Your task to perform on an android device: star an email in the gmail app Image 0: 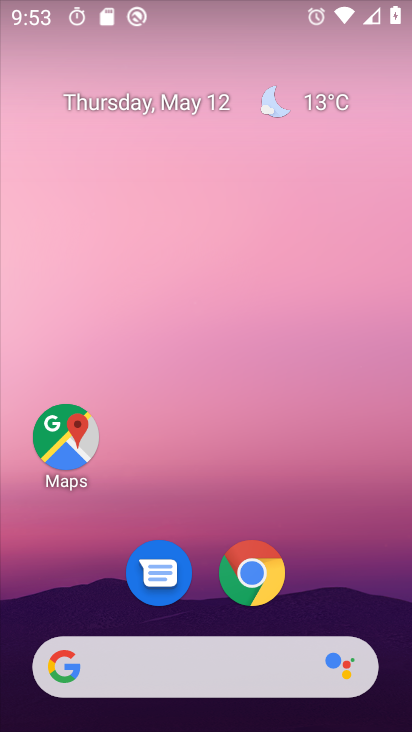
Step 0: drag from (384, 411) to (380, 278)
Your task to perform on an android device: star an email in the gmail app Image 1: 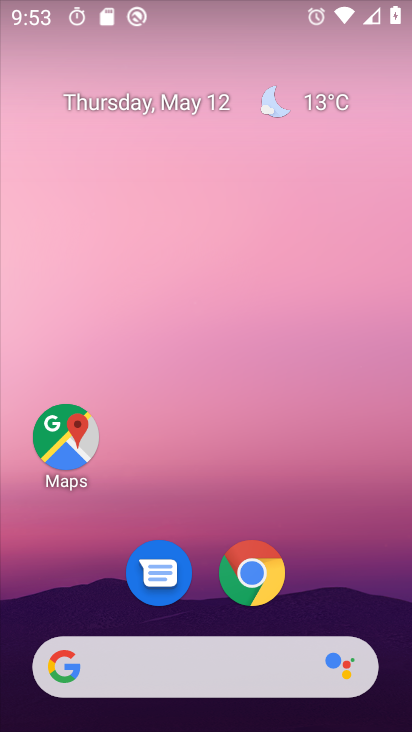
Step 1: drag from (397, 569) to (389, 247)
Your task to perform on an android device: star an email in the gmail app Image 2: 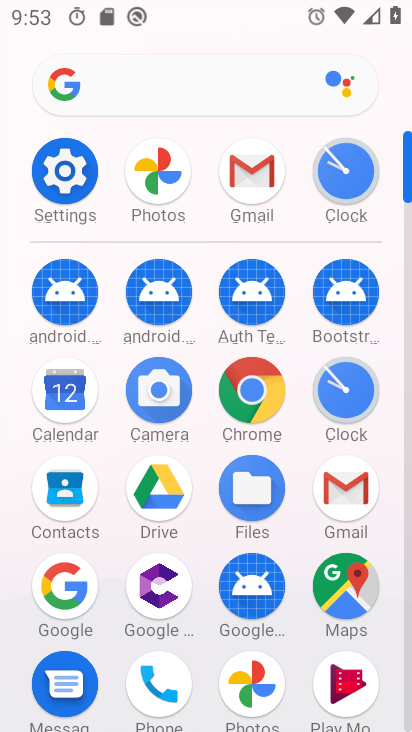
Step 2: click (339, 516)
Your task to perform on an android device: star an email in the gmail app Image 3: 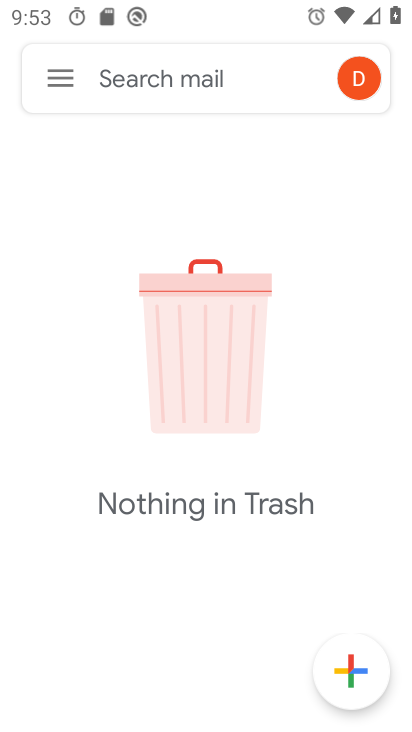
Step 3: click (62, 71)
Your task to perform on an android device: star an email in the gmail app Image 4: 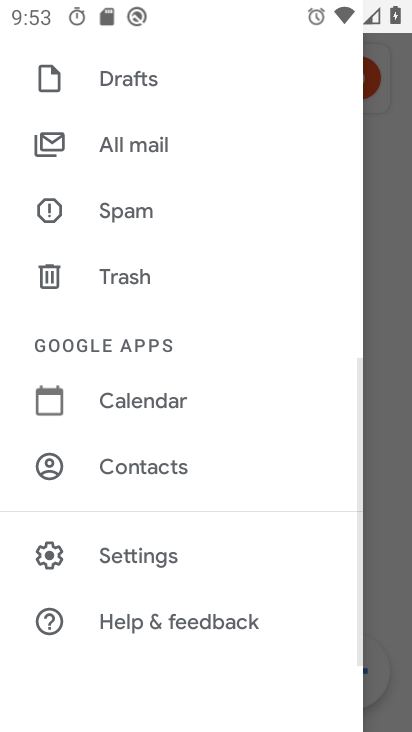
Step 4: drag from (230, 98) to (228, 317)
Your task to perform on an android device: star an email in the gmail app Image 5: 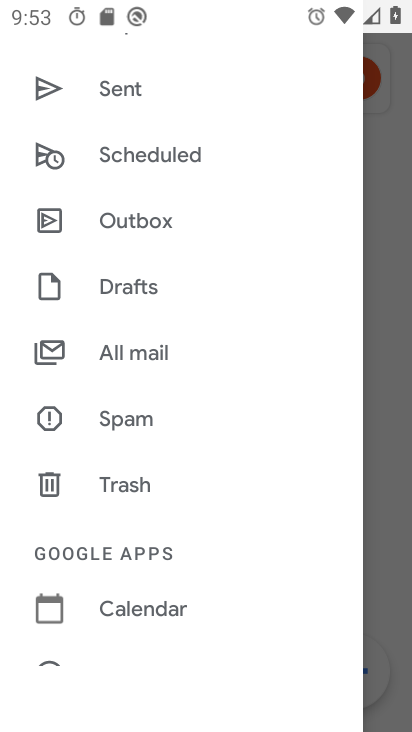
Step 5: drag from (271, 223) to (281, 384)
Your task to perform on an android device: star an email in the gmail app Image 6: 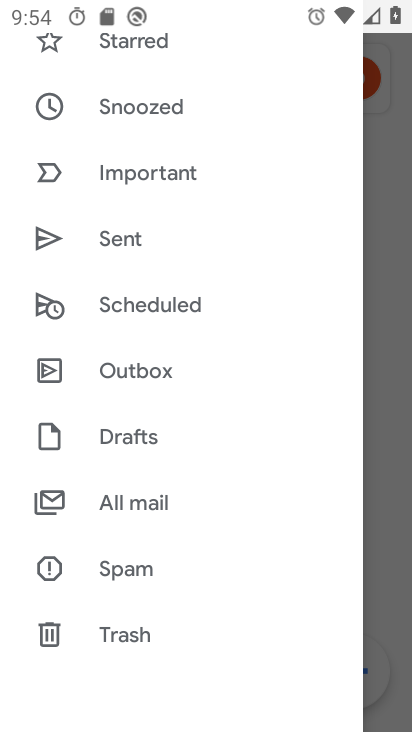
Step 6: drag from (267, 215) to (258, 480)
Your task to perform on an android device: star an email in the gmail app Image 7: 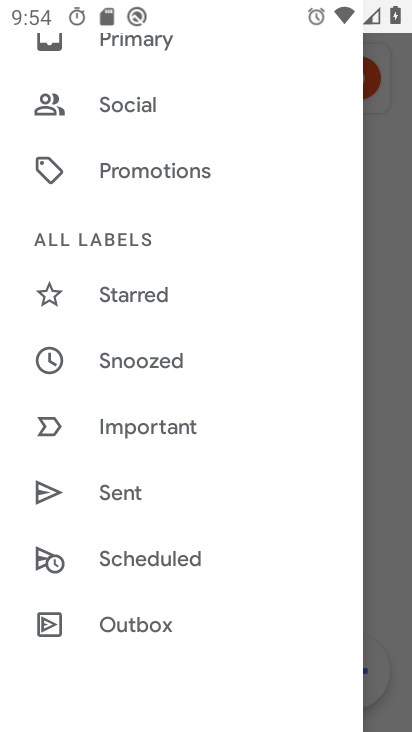
Step 7: drag from (266, 279) to (237, 638)
Your task to perform on an android device: star an email in the gmail app Image 8: 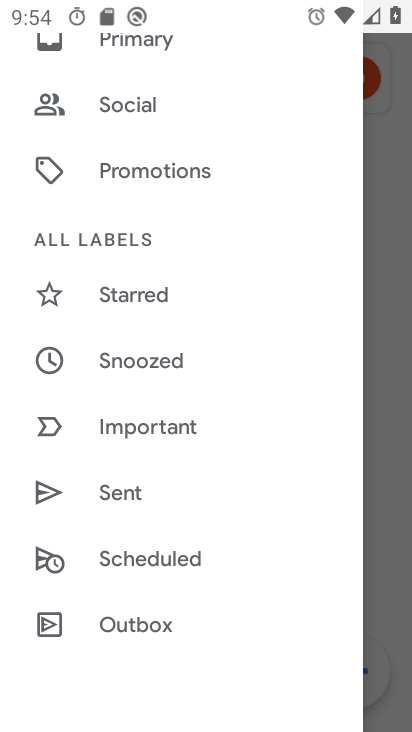
Step 8: drag from (301, 157) to (282, 464)
Your task to perform on an android device: star an email in the gmail app Image 9: 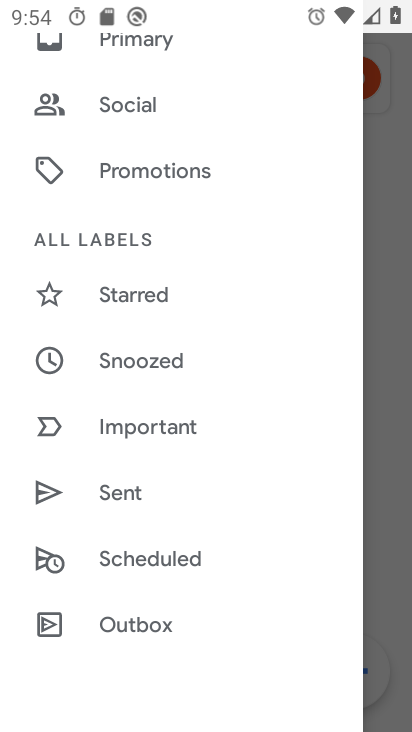
Step 9: drag from (289, 218) to (253, 472)
Your task to perform on an android device: star an email in the gmail app Image 10: 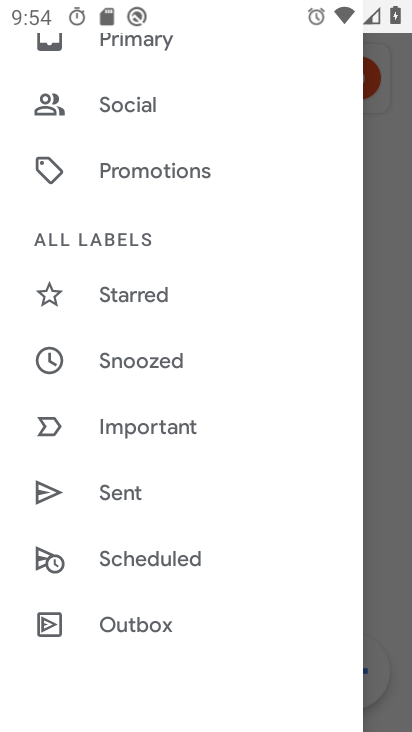
Step 10: drag from (302, 162) to (324, 541)
Your task to perform on an android device: star an email in the gmail app Image 11: 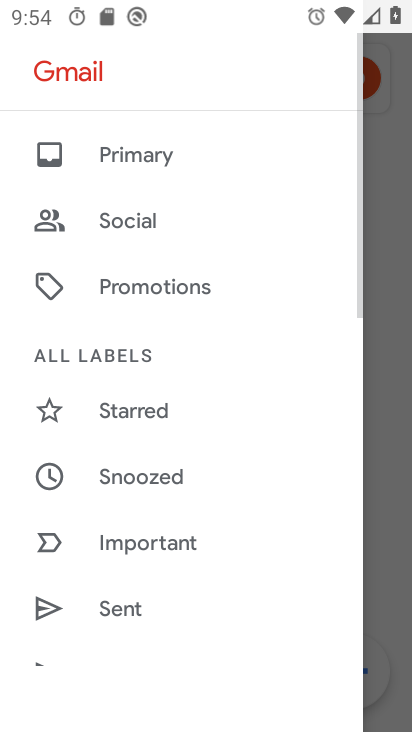
Step 11: click (132, 152)
Your task to perform on an android device: star an email in the gmail app Image 12: 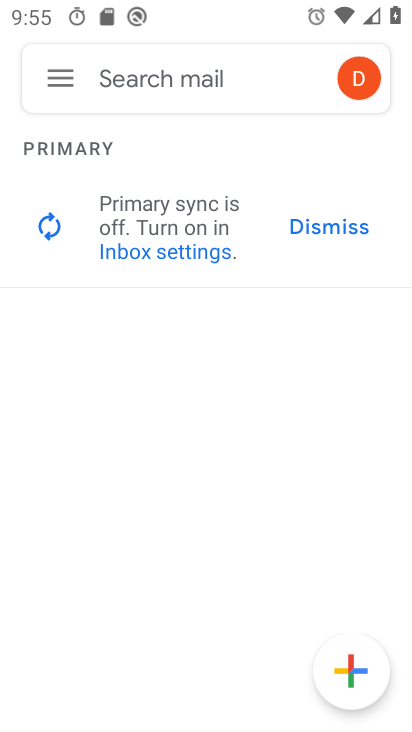
Step 12: task complete